Your task to perform on an android device: choose inbox layout in the gmail app Image 0: 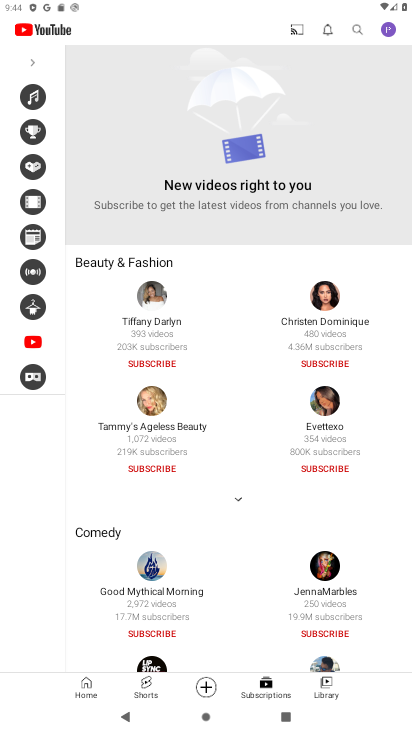
Step 0: press home button
Your task to perform on an android device: choose inbox layout in the gmail app Image 1: 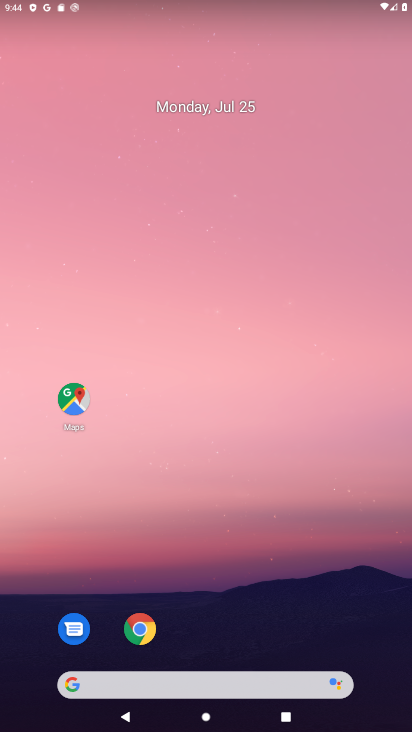
Step 1: drag from (190, 644) to (343, 3)
Your task to perform on an android device: choose inbox layout in the gmail app Image 2: 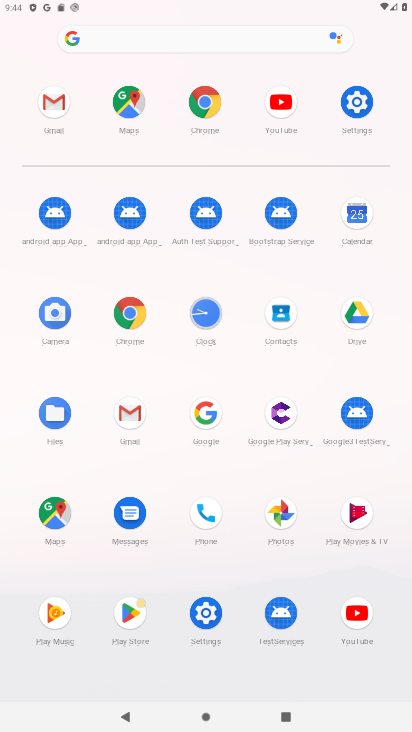
Step 2: click (48, 104)
Your task to perform on an android device: choose inbox layout in the gmail app Image 3: 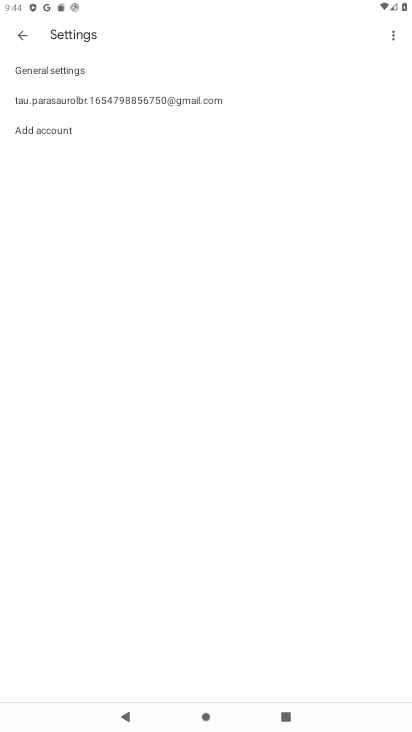
Step 3: click (60, 107)
Your task to perform on an android device: choose inbox layout in the gmail app Image 4: 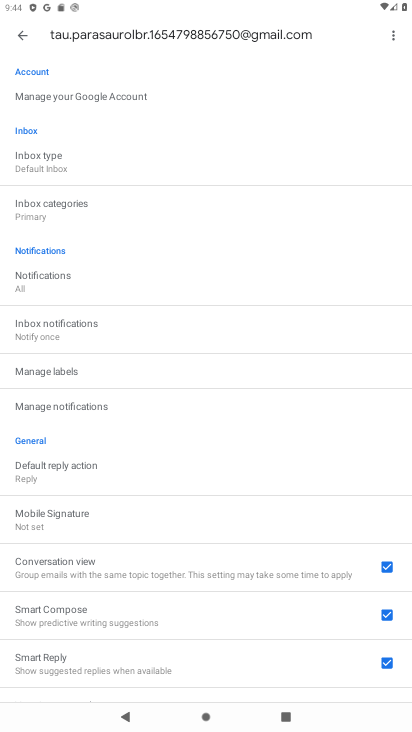
Step 4: click (89, 172)
Your task to perform on an android device: choose inbox layout in the gmail app Image 5: 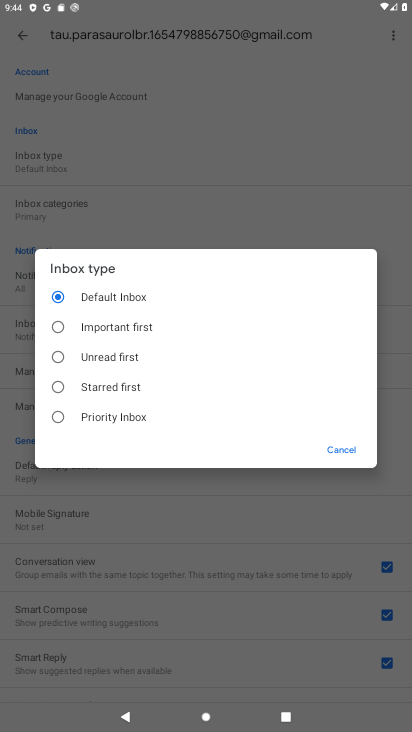
Step 5: click (115, 386)
Your task to perform on an android device: choose inbox layout in the gmail app Image 6: 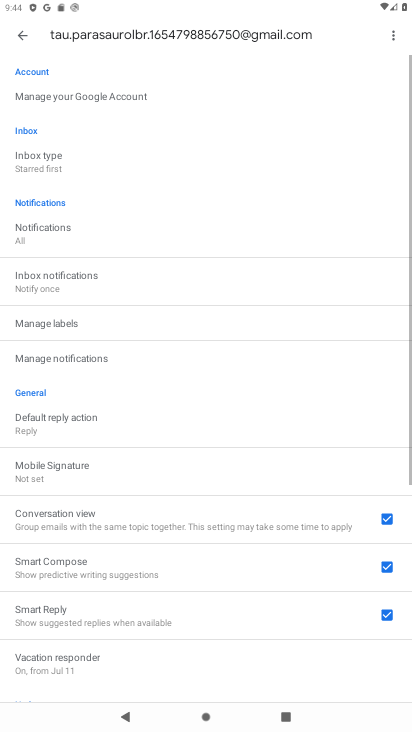
Step 6: task complete